Your task to perform on an android device: Open Android settings Image 0: 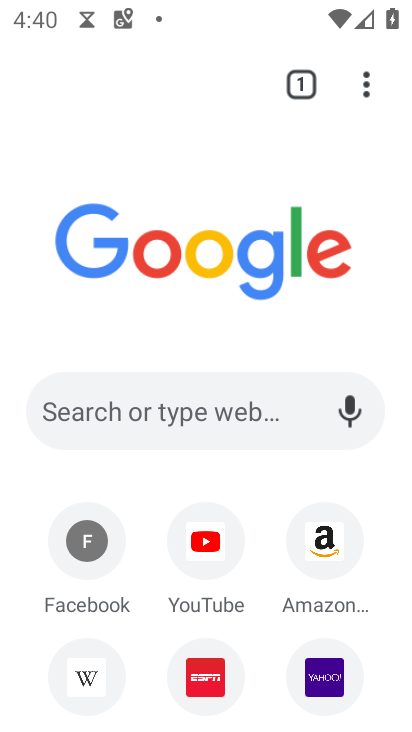
Step 0: press back button
Your task to perform on an android device: Open Android settings Image 1: 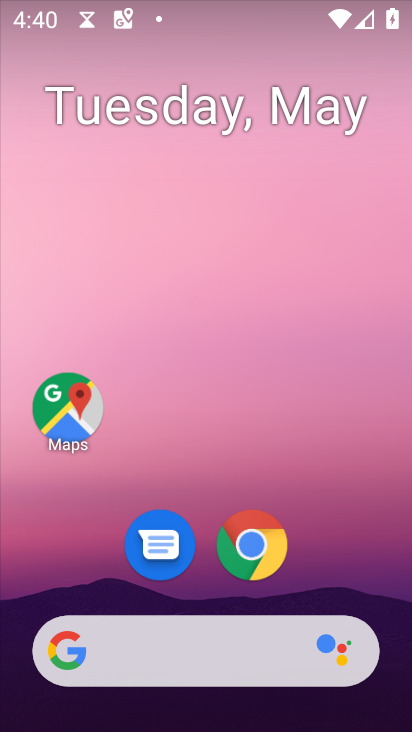
Step 1: drag from (322, 589) to (269, 203)
Your task to perform on an android device: Open Android settings Image 2: 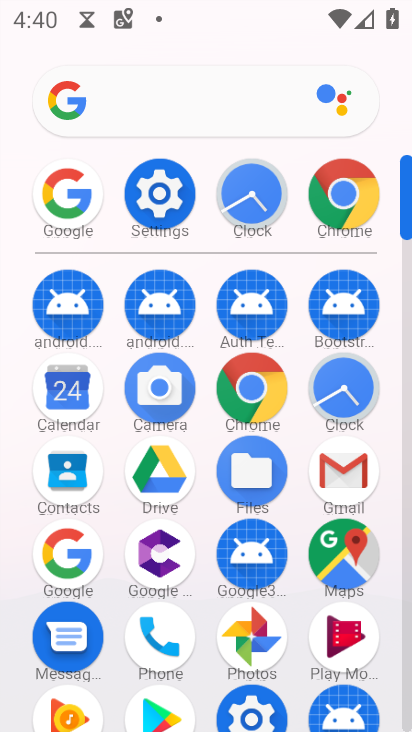
Step 2: click (160, 191)
Your task to perform on an android device: Open Android settings Image 3: 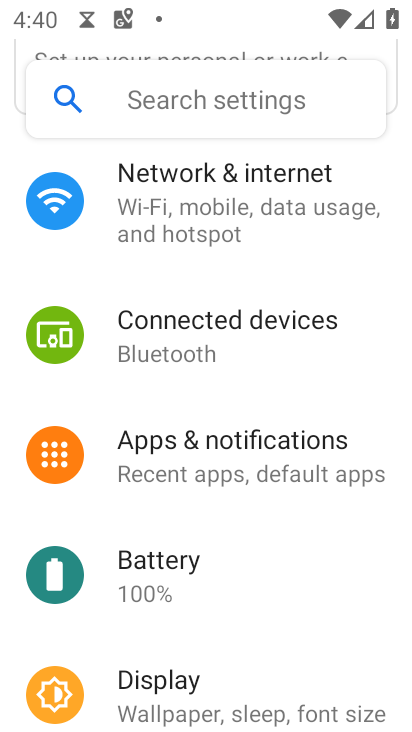
Step 3: task complete